Your task to perform on an android device: Go to Google maps Image 0: 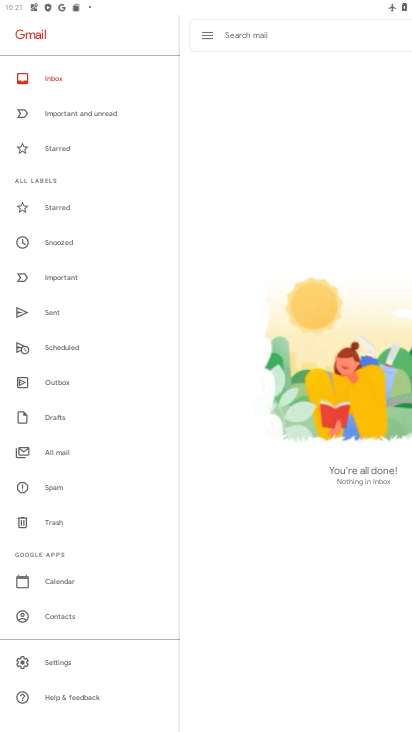
Step 0: press home button
Your task to perform on an android device: Go to Google maps Image 1: 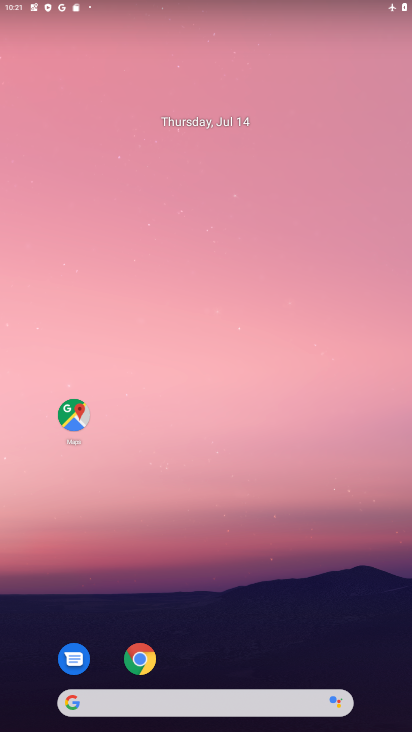
Step 1: drag from (338, 610) to (304, 160)
Your task to perform on an android device: Go to Google maps Image 2: 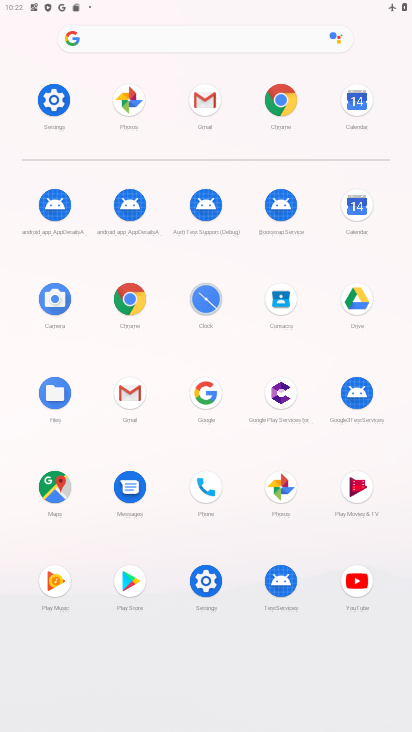
Step 2: click (41, 483)
Your task to perform on an android device: Go to Google maps Image 3: 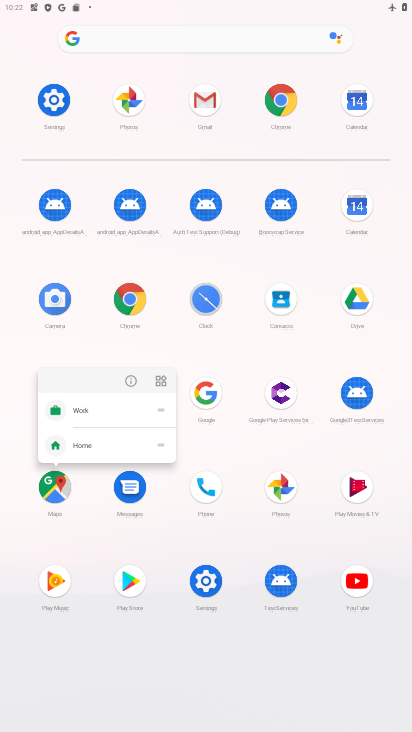
Step 3: click (54, 489)
Your task to perform on an android device: Go to Google maps Image 4: 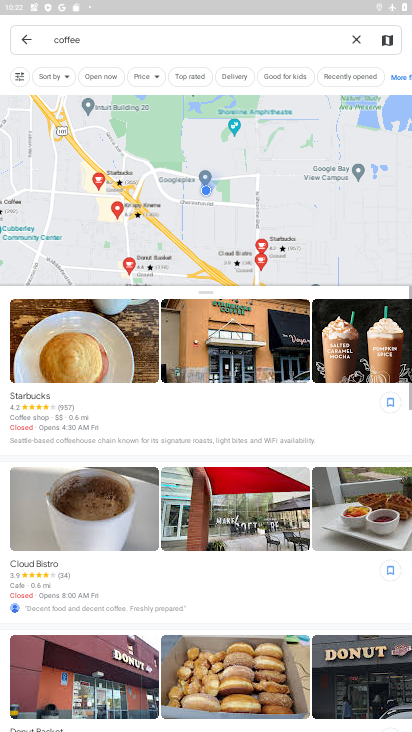
Step 4: task complete